Your task to perform on an android device: delete the emails in spam in the gmail app Image 0: 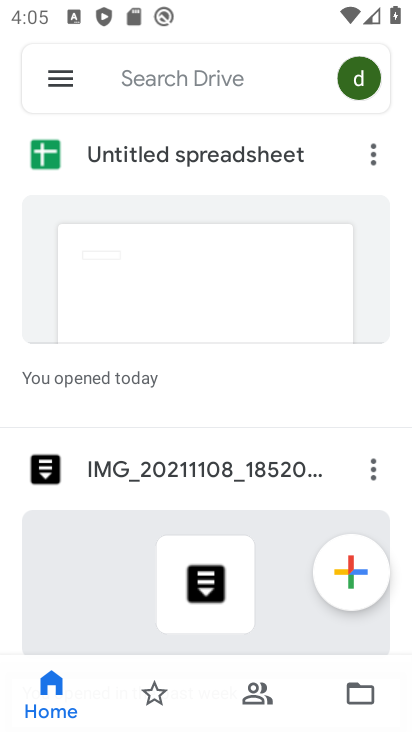
Step 0: press home button
Your task to perform on an android device: delete the emails in spam in the gmail app Image 1: 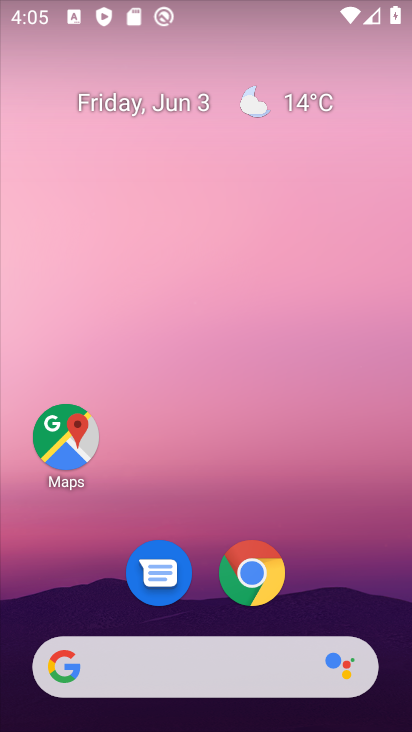
Step 1: drag from (270, 680) to (322, 0)
Your task to perform on an android device: delete the emails in spam in the gmail app Image 2: 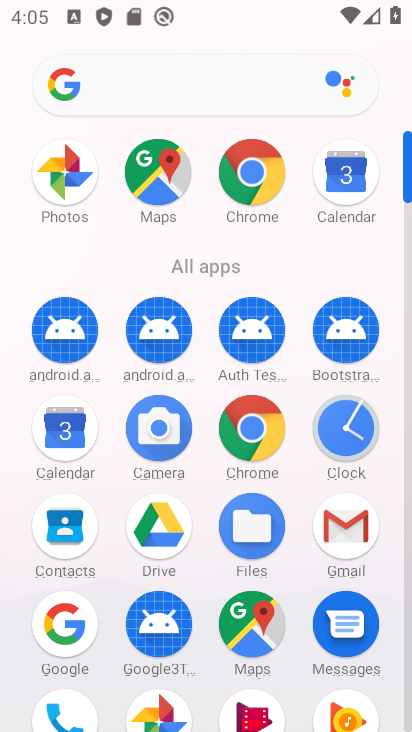
Step 2: click (331, 542)
Your task to perform on an android device: delete the emails in spam in the gmail app Image 3: 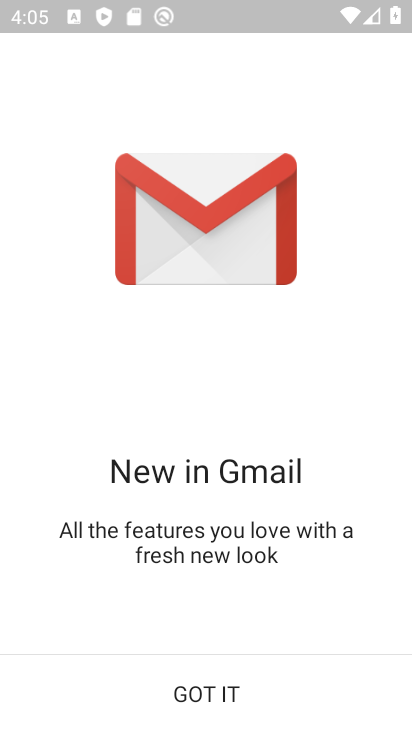
Step 3: click (221, 699)
Your task to perform on an android device: delete the emails in spam in the gmail app Image 4: 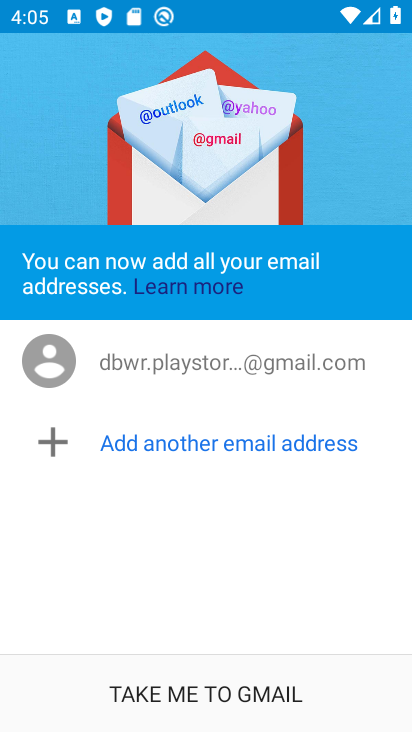
Step 4: click (221, 699)
Your task to perform on an android device: delete the emails in spam in the gmail app Image 5: 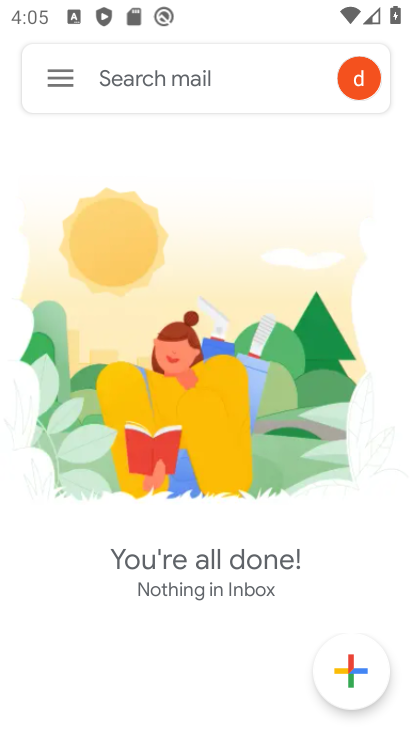
Step 5: click (72, 83)
Your task to perform on an android device: delete the emails in spam in the gmail app Image 6: 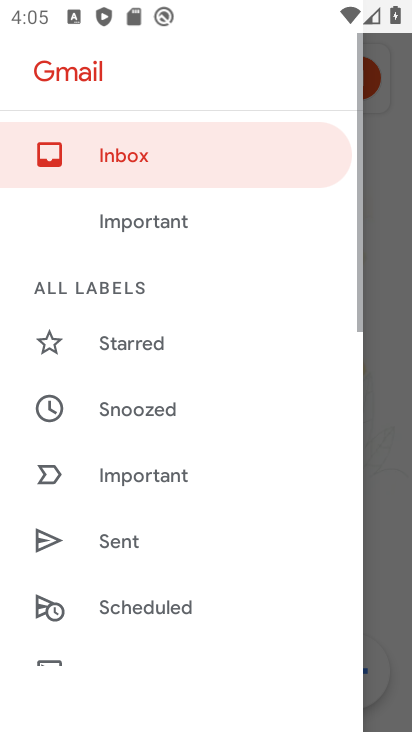
Step 6: drag from (183, 639) to (203, 229)
Your task to perform on an android device: delete the emails in spam in the gmail app Image 7: 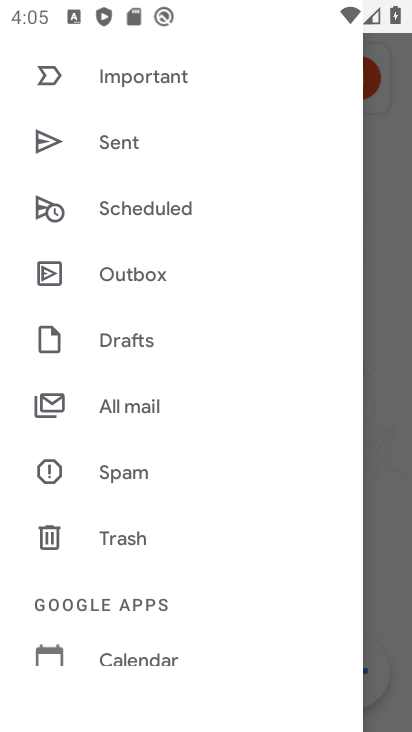
Step 7: click (143, 488)
Your task to perform on an android device: delete the emails in spam in the gmail app Image 8: 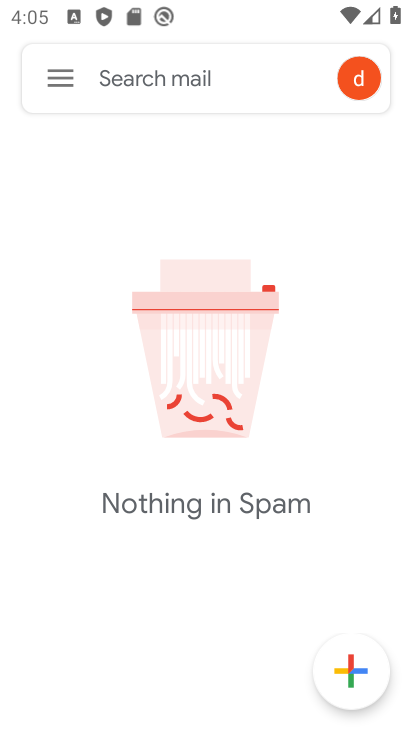
Step 8: task complete